Your task to perform on an android device: Search for "amazon basics triple a" on target, select the first entry, and add it to the cart. Image 0: 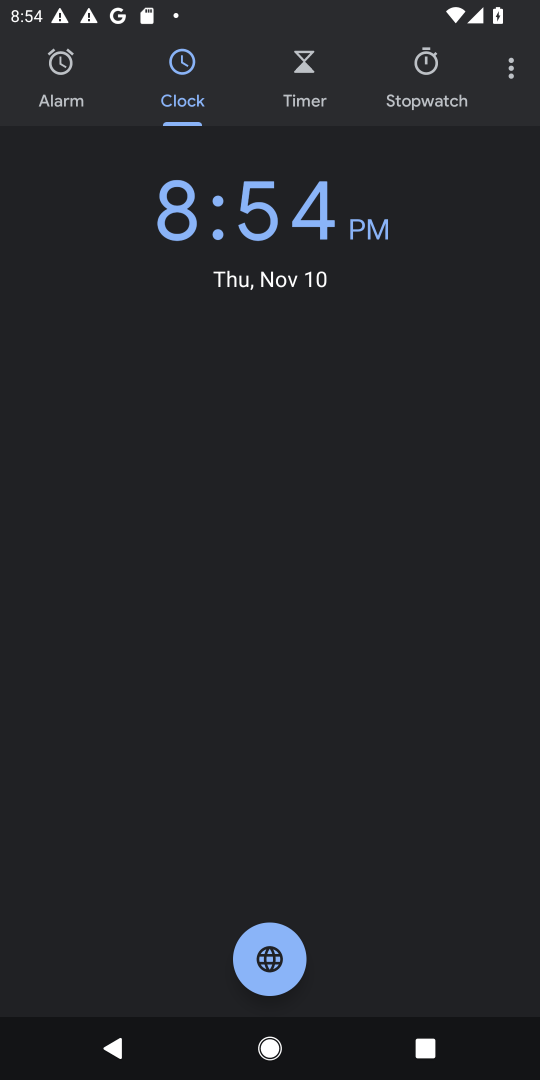
Step 0: press home button
Your task to perform on an android device: Search for "amazon basics triple a" on target, select the first entry, and add it to the cart. Image 1: 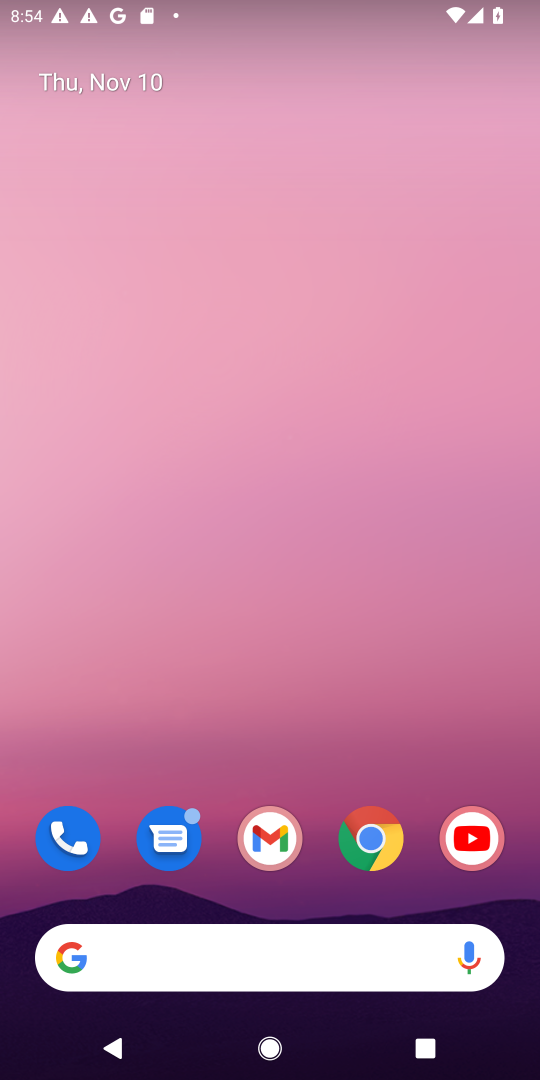
Step 1: drag from (341, 880) to (335, 64)
Your task to perform on an android device: Search for "amazon basics triple a" on target, select the first entry, and add it to the cart. Image 2: 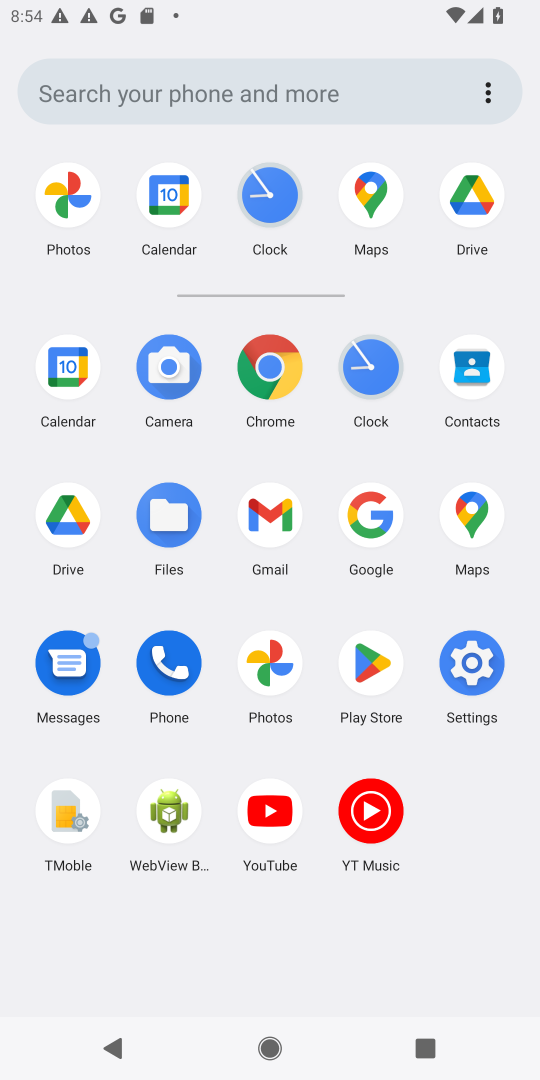
Step 2: click (266, 371)
Your task to perform on an android device: Search for "amazon basics triple a" on target, select the first entry, and add it to the cart. Image 3: 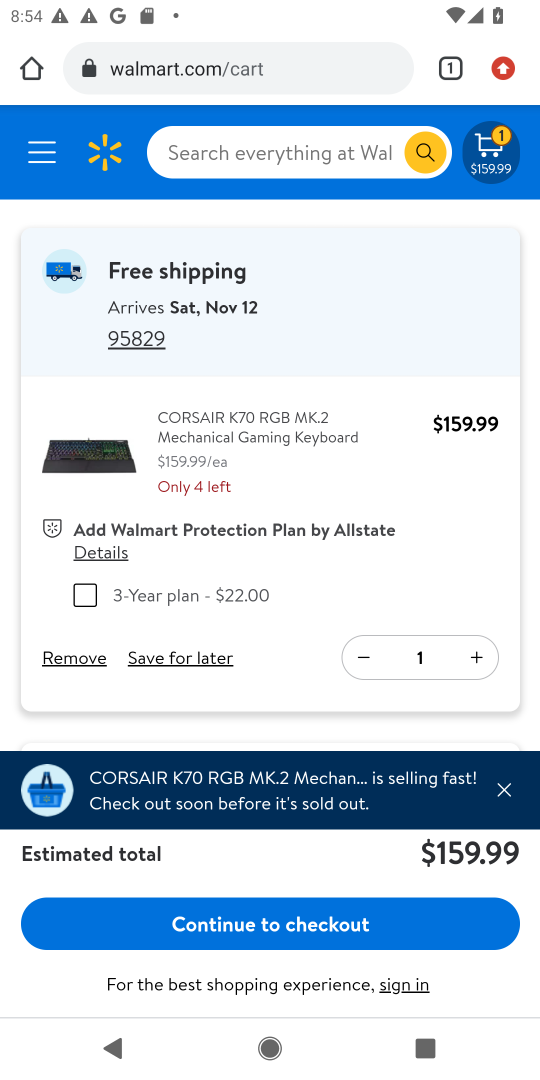
Step 3: click (234, 68)
Your task to perform on an android device: Search for "amazon basics triple a" on target, select the first entry, and add it to the cart. Image 4: 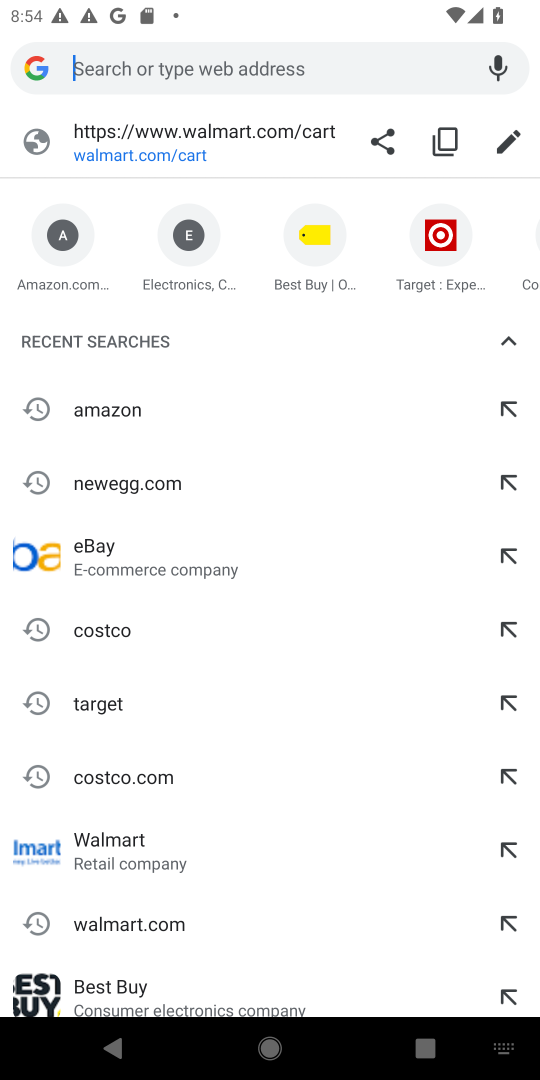
Step 4: type "target.com"
Your task to perform on an android device: Search for "amazon basics triple a" on target, select the first entry, and add it to the cart. Image 5: 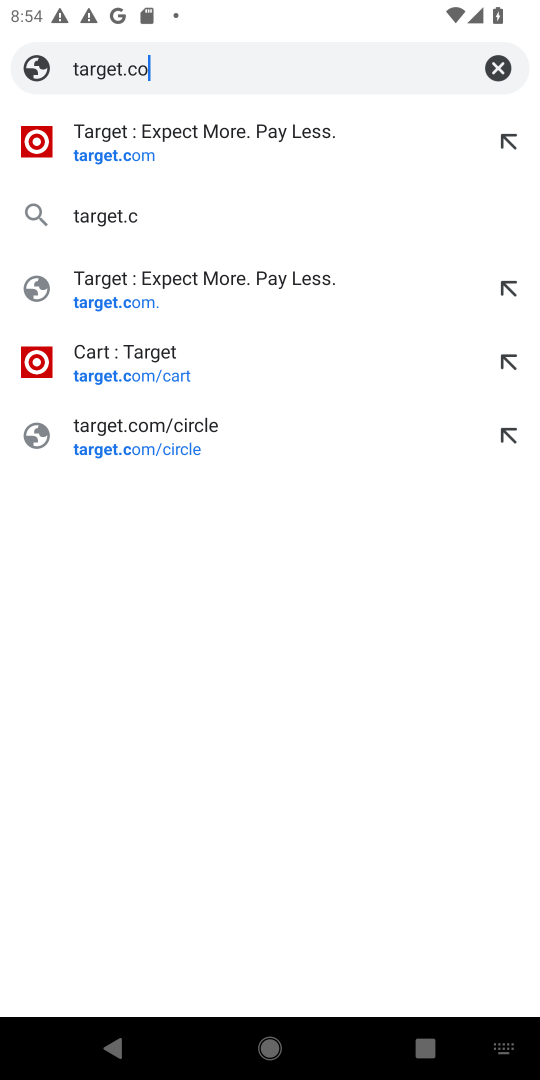
Step 5: press enter
Your task to perform on an android device: Search for "amazon basics triple a" on target, select the first entry, and add it to the cart. Image 6: 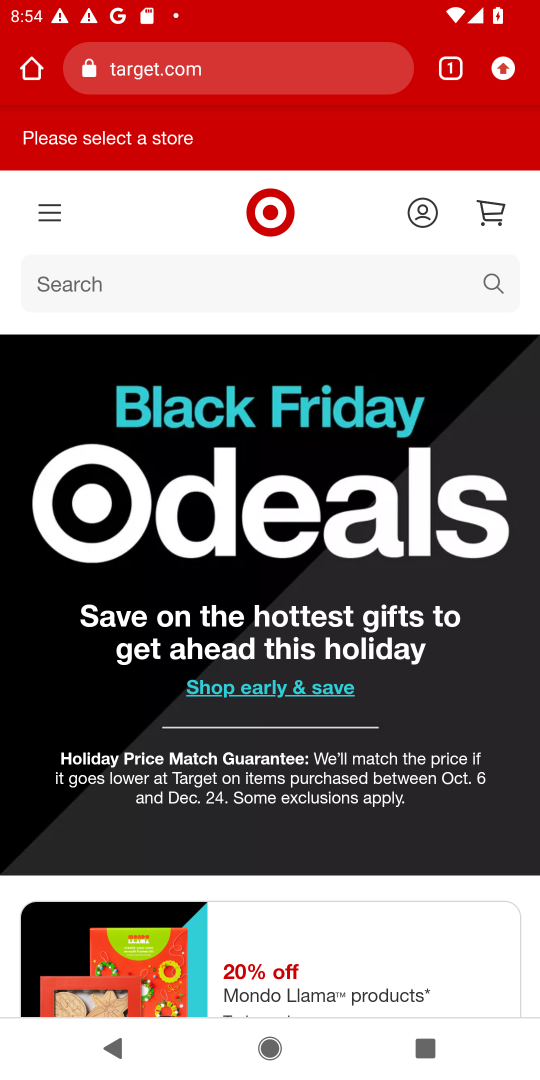
Step 6: drag from (307, 904) to (356, 937)
Your task to perform on an android device: Search for "amazon basics triple a" on target, select the first entry, and add it to the cart. Image 7: 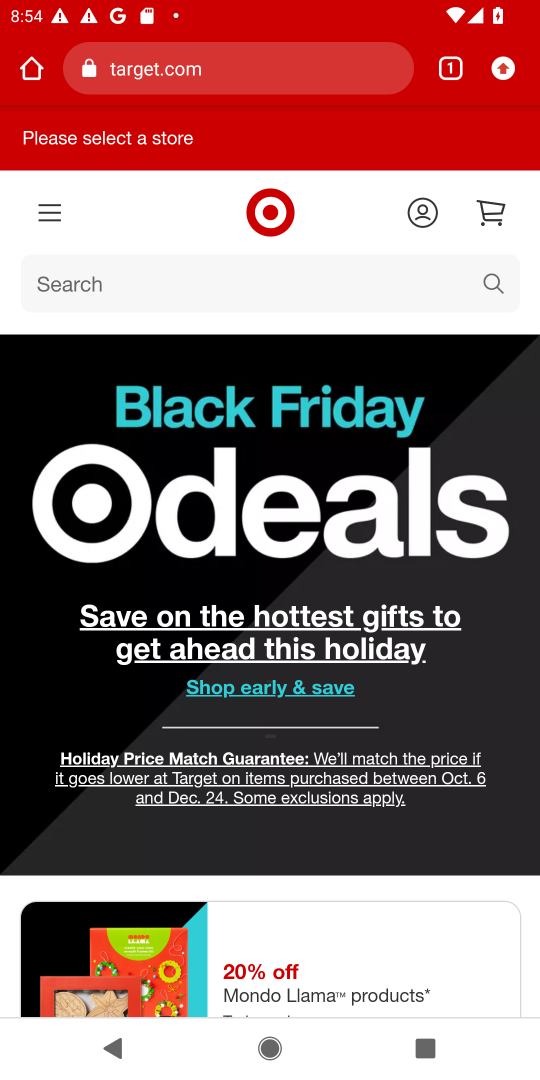
Step 7: click (308, 294)
Your task to perform on an android device: Search for "amazon basics triple a" on target, select the first entry, and add it to the cart. Image 8: 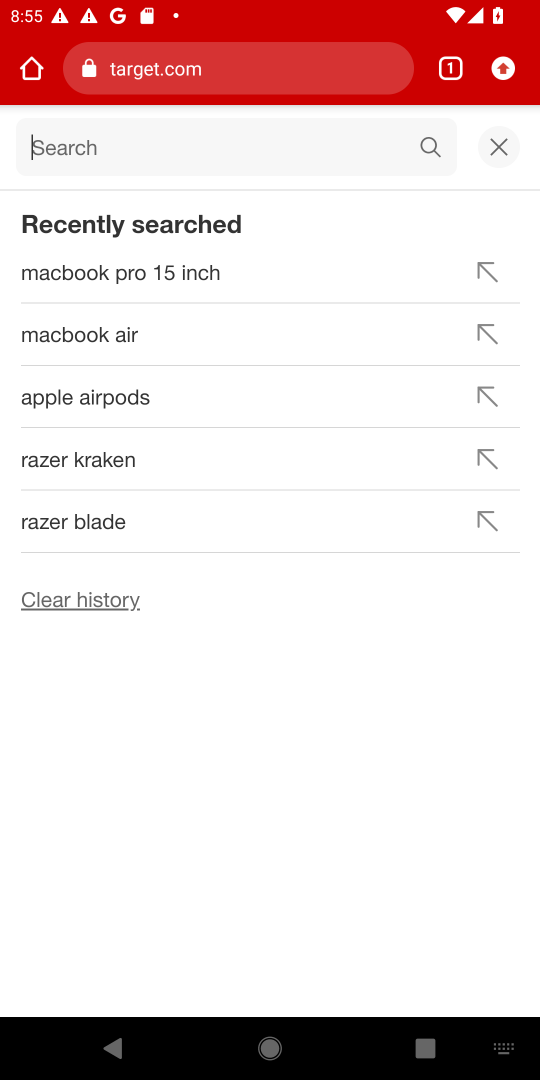
Step 8: type "amazon basics triple a"
Your task to perform on an android device: Search for "amazon basics triple a" on target, select the first entry, and add it to the cart. Image 9: 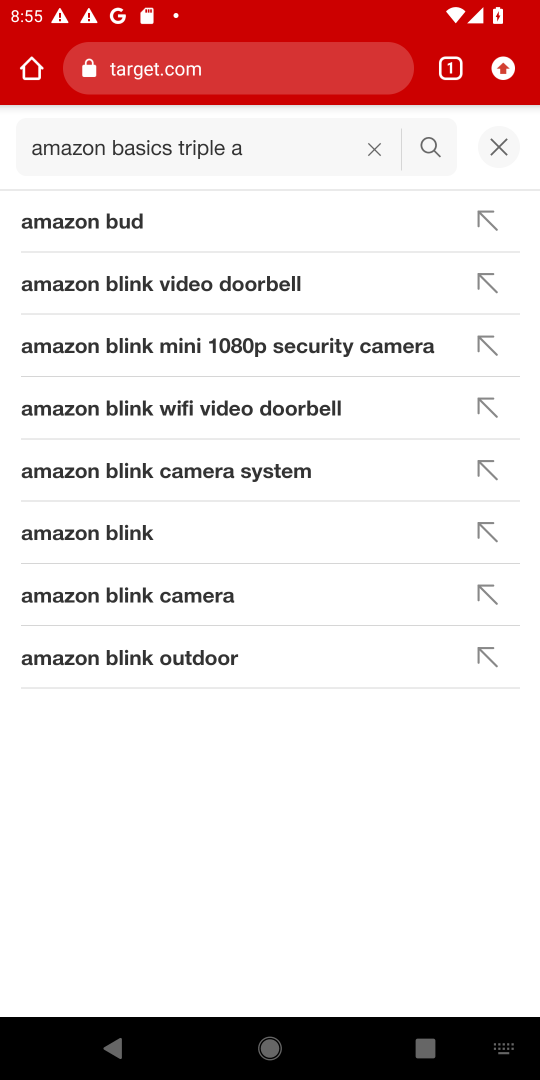
Step 9: press enter
Your task to perform on an android device: Search for "amazon basics triple a" on target, select the first entry, and add it to the cart. Image 10: 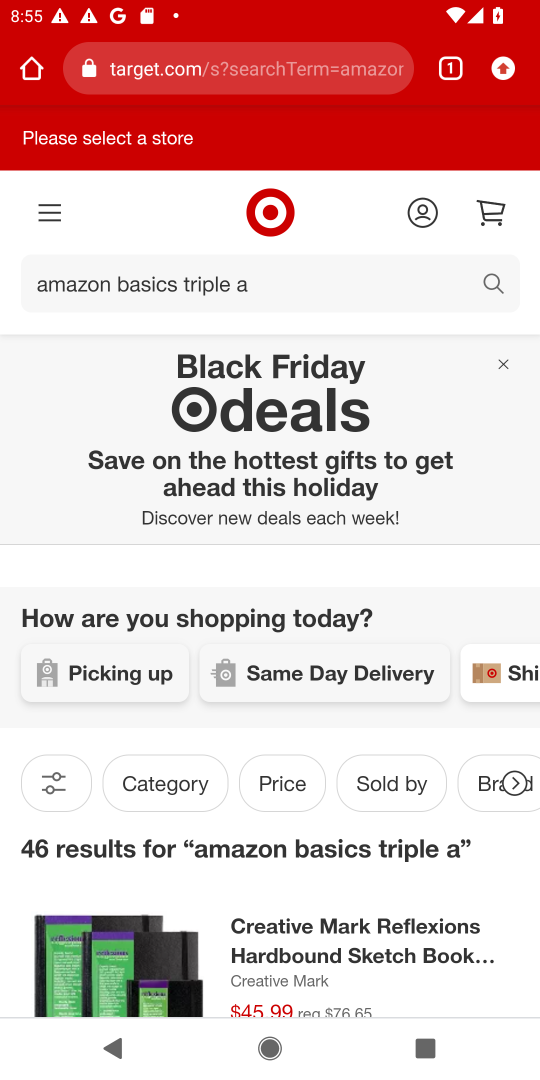
Step 10: task complete